Your task to perform on an android device: change the clock style Image 0: 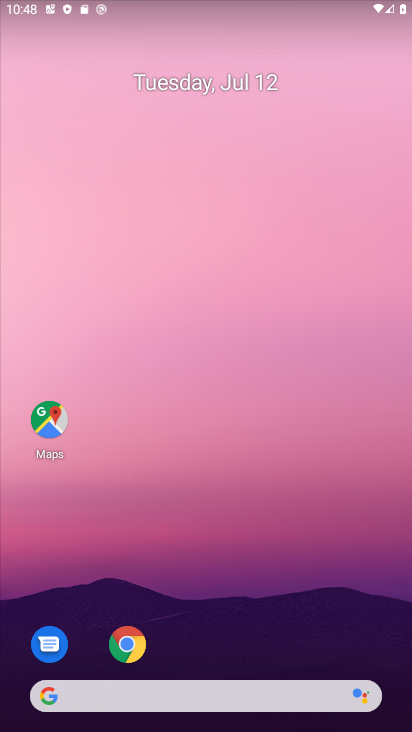
Step 0: drag from (215, 656) to (242, 106)
Your task to perform on an android device: change the clock style Image 1: 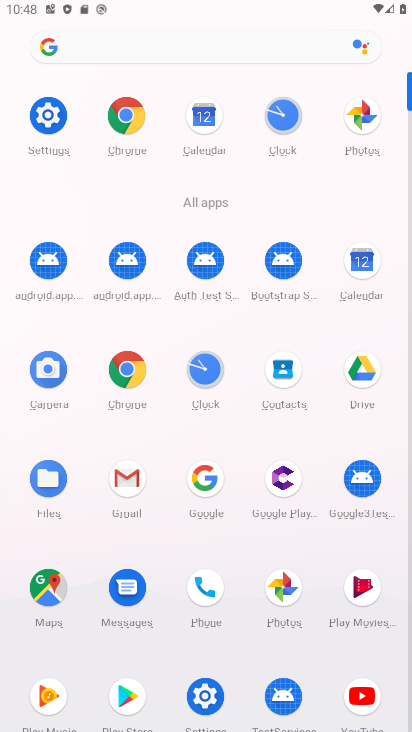
Step 1: click (282, 115)
Your task to perform on an android device: change the clock style Image 2: 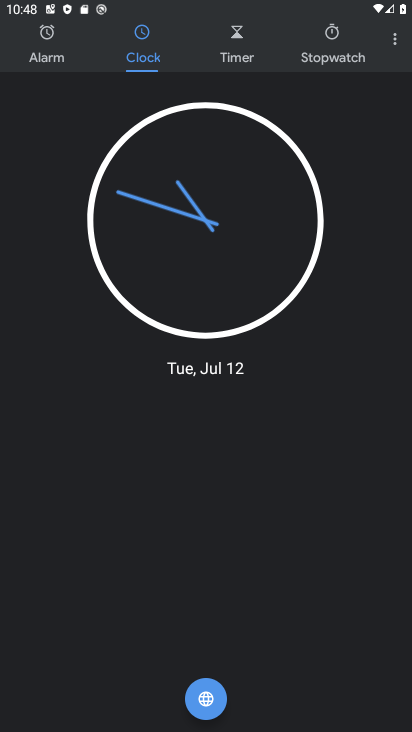
Step 2: click (395, 47)
Your task to perform on an android device: change the clock style Image 3: 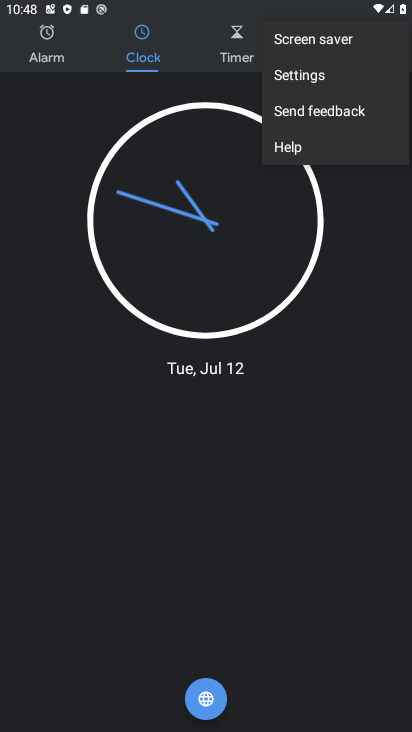
Step 3: click (333, 77)
Your task to perform on an android device: change the clock style Image 4: 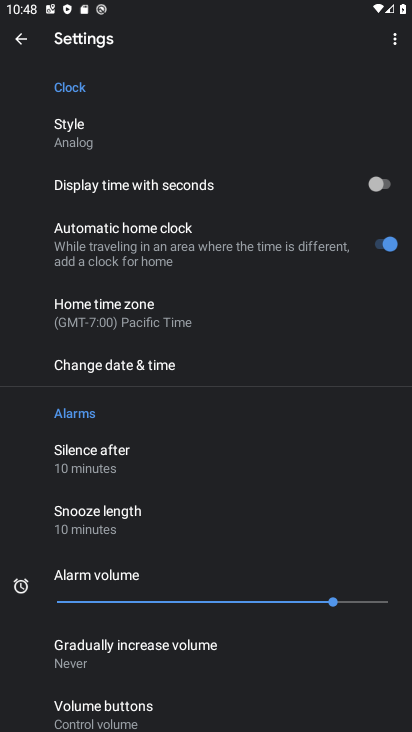
Step 4: click (120, 136)
Your task to perform on an android device: change the clock style Image 5: 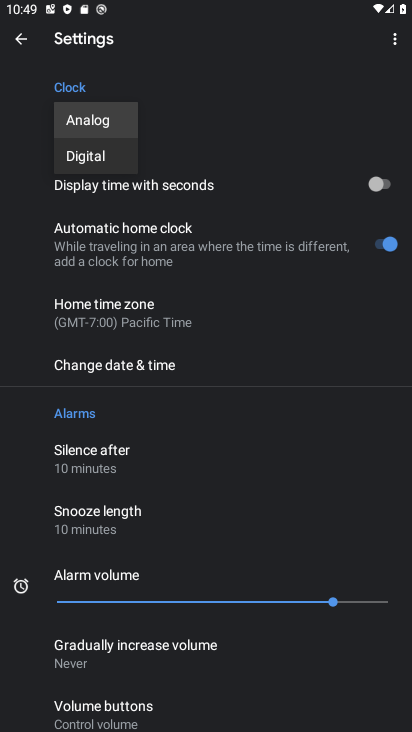
Step 5: click (108, 149)
Your task to perform on an android device: change the clock style Image 6: 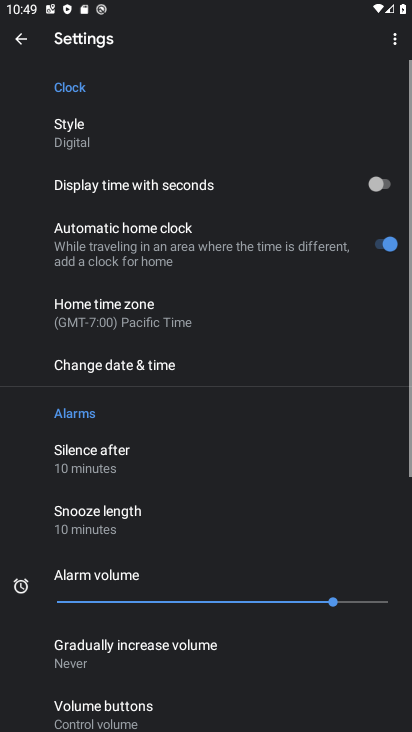
Step 6: task complete